Your task to perform on an android device: Go to ESPN.com Image 0: 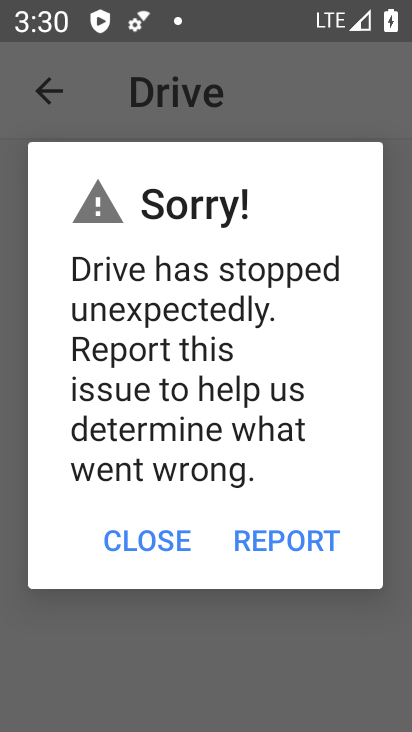
Step 0: press home button
Your task to perform on an android device: Go to ESPN.com Image 1: 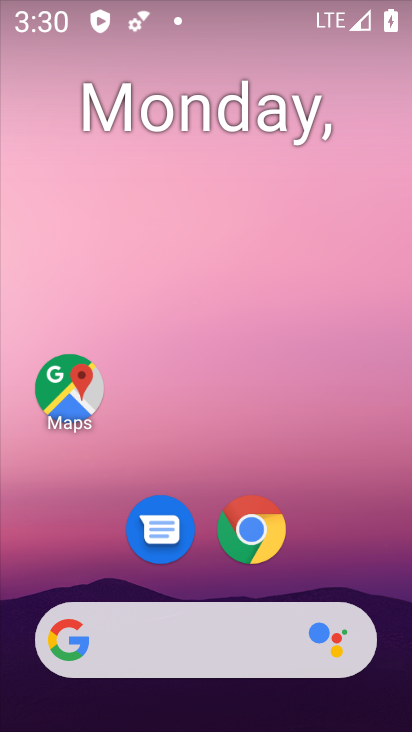
Step 1: drag from (173, 595) to (169, 121)
Your task to perform on an android device: Go to ESPN.com Image 2: 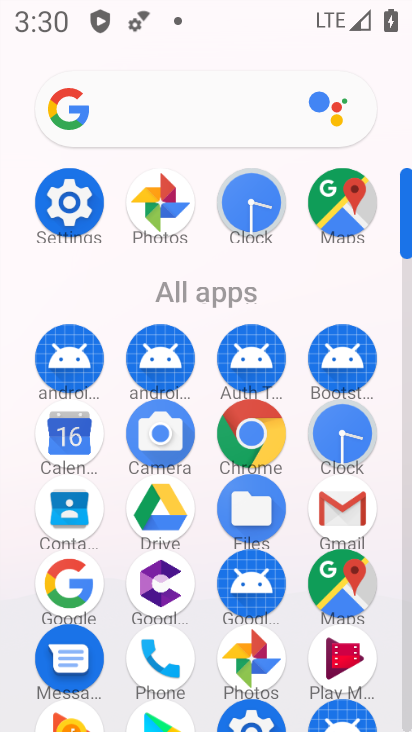
Step 2: click (255, 431)
Your task to perform on an android device: Go to ESPN.com Image 3: 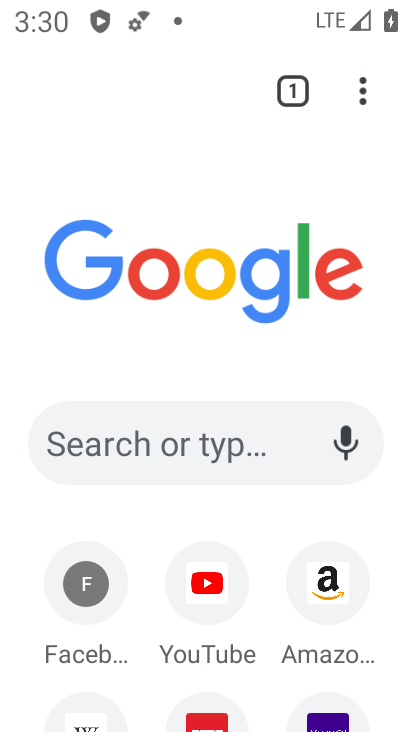
Step 3: click (223, 704)
Your task to perform on an android device: Go to ESPN.com Image 4: 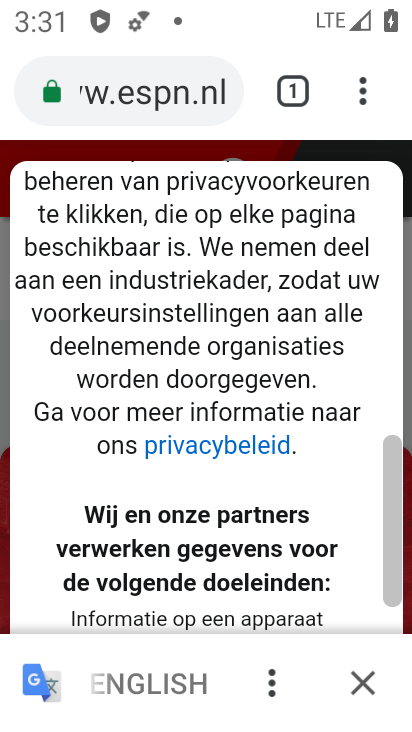
Step 4: task complete